Your task to perform on an android device: Turn on the flashlight Image 0: 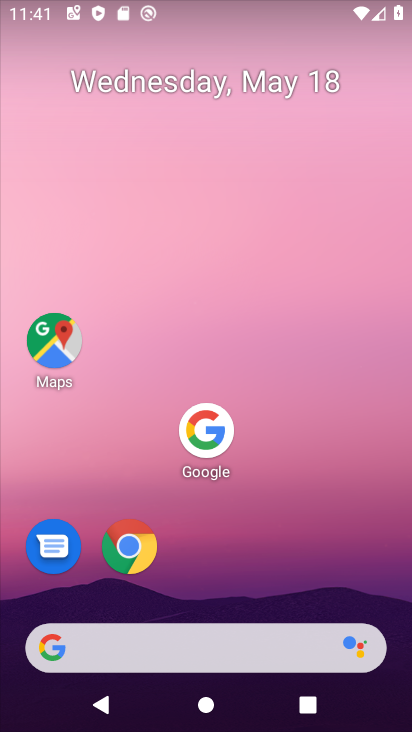
Step 0: drag from (285, 517) to (278, 6)
Your task to perform on an android device: Turn on the flashlight Image 1: 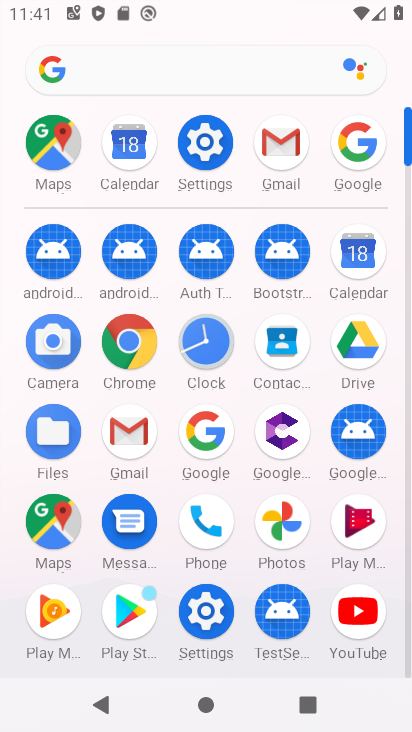
Step 1: click (209, 619)
Your task to perform on an android device: Turn on the flashlight Image 2: 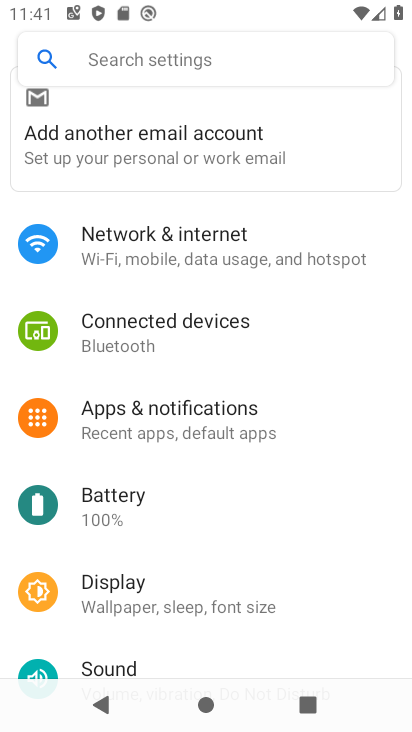
Step 2: click (221, 62)
Your task to perform on an android device: Turn on the flashlight Image 3: 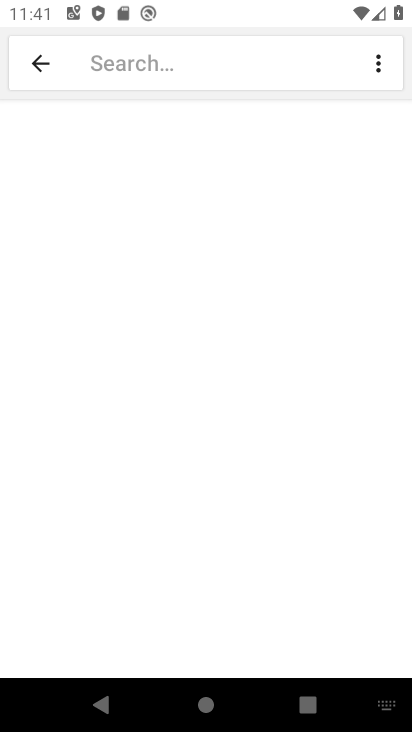
Step 3: type "flash"
Your task to perform on an android device: Turn on the flashlight Image 4: 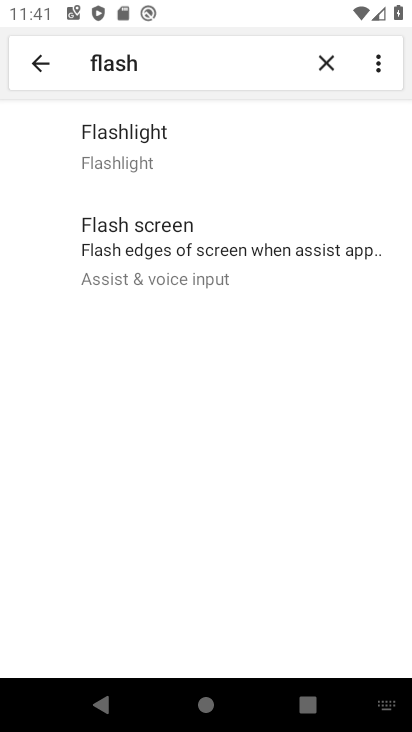
Step 4: task complete